Your task to perform on an android device: toggle translation in the chrome app Image 0: 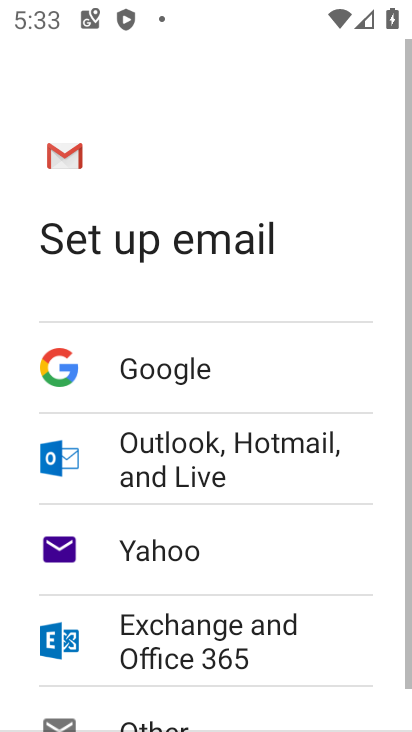
Step 0: press home button
Your task to perform on an android device: toggle translation in the chrome app Image 1: 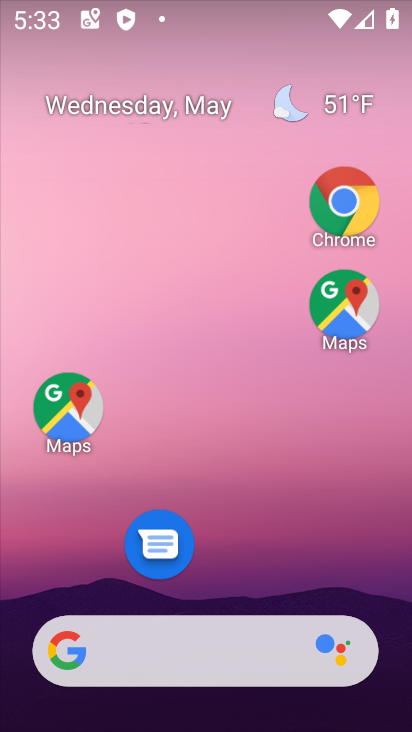
Step 1: drag from (271, 555) to (251, 0)
Your task to perform on an android device: toggle translation in the chrome app Image 2: 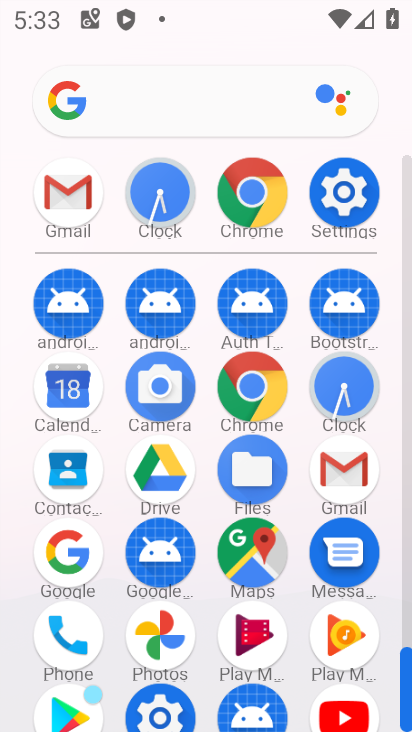
Step 2: click (254, 208)
Your task to perform on an android device: toggle translation in the chrome app Image 3: 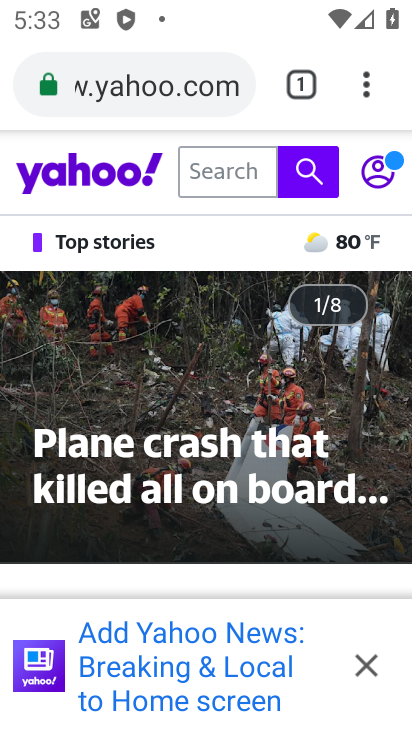
Step 3: click (372, 79)
Your task to perform on an android device: toggle translation in the chrome app Image 4: 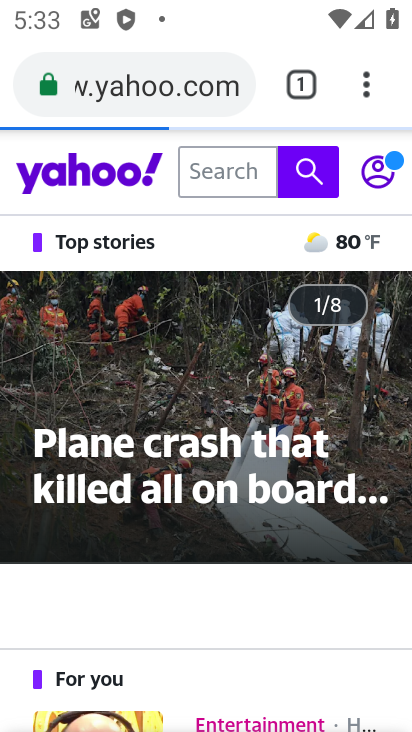
Step 4: click (374, 89)
Your task to perform on an android device: toggle translation in the chrome app Image 5: 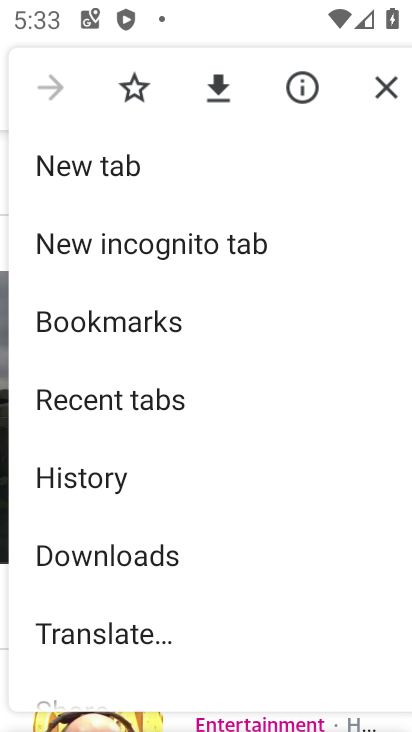
Step 5: drag from (165, 597) to (125, 316)
Your task to perform on an android device: toggle translation in the chrome app Image 6: 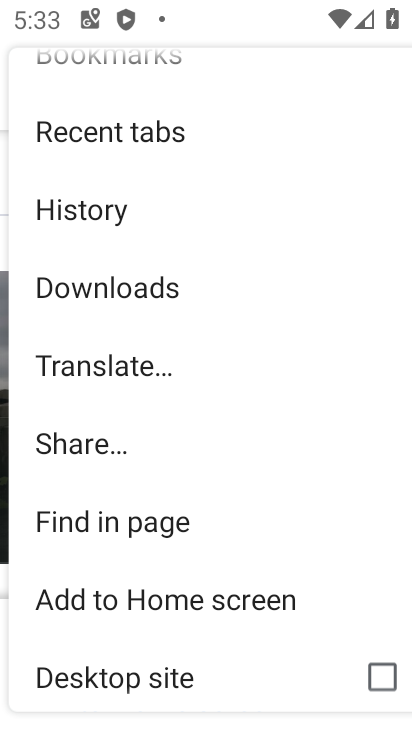
Step 6: drag from (139, 596) to (140, 187)
Your task to perform on an android device: toggle translation in the chrome app Image 7: 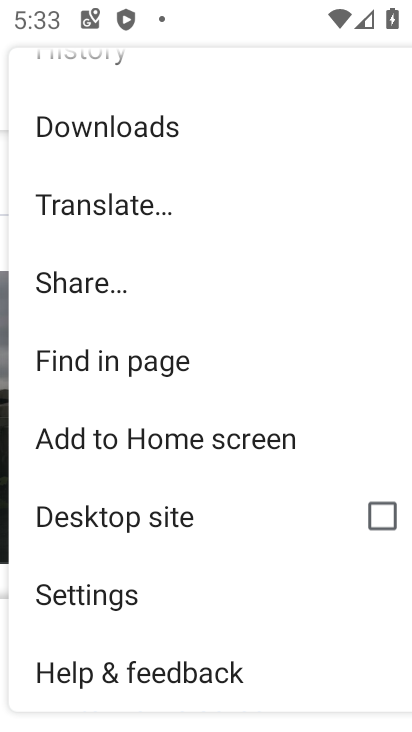
Step 7: click (88, 591)
Your task to perform on an android device: toggle translation in the chrome app Image 8: 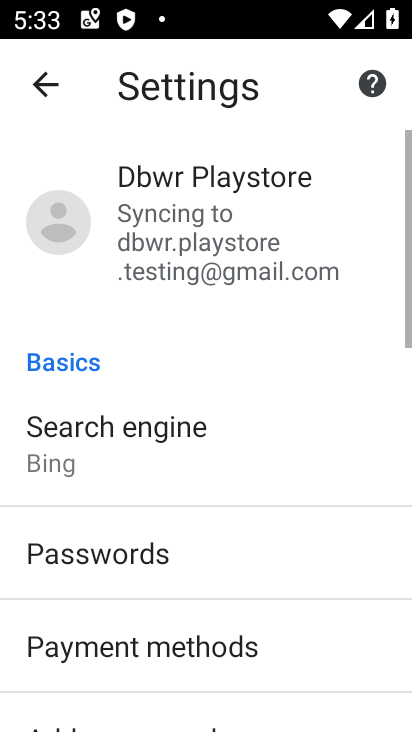
Step 8: drag from (200, 637) to (159, 242)
Your task to perform on an android device: toggle translation in the chrome app Image 9: 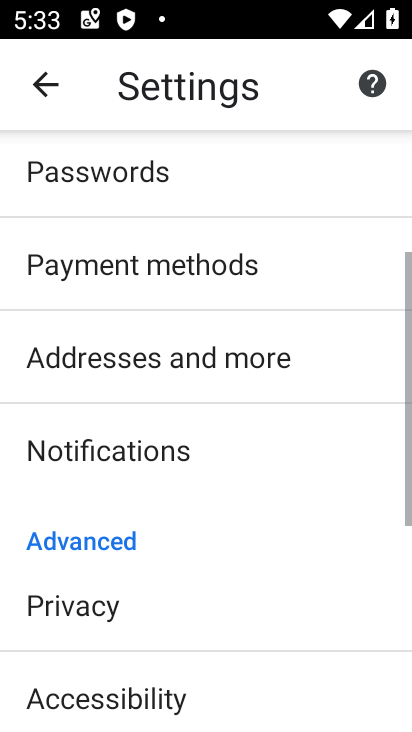
Step 9: drag from (158, 639) to (158, 329)
Your task to perform on an android device: toggle translation in the chrome app Image 10: 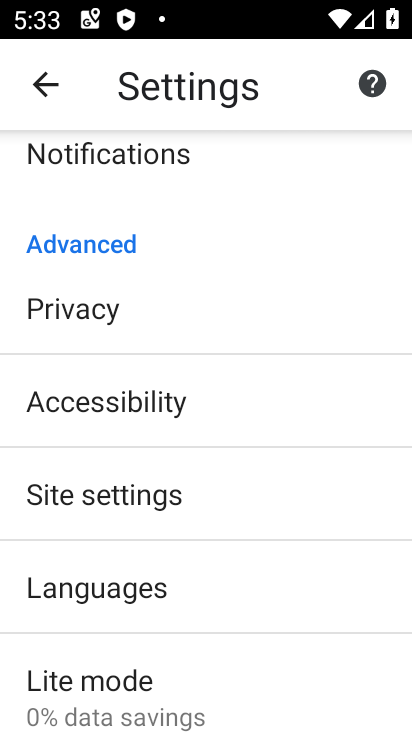
Step 10: drag from (143, 658) to (140, 395)
Your task to perform on an android device: toggle translation in the chrome app Image 11: 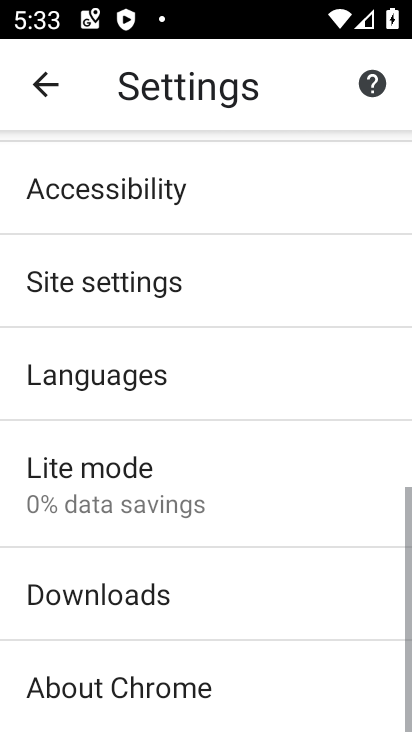
Step 11: click (102, 388)
Your task to perform on an android device: toggle translation in the chrome app Image 12: 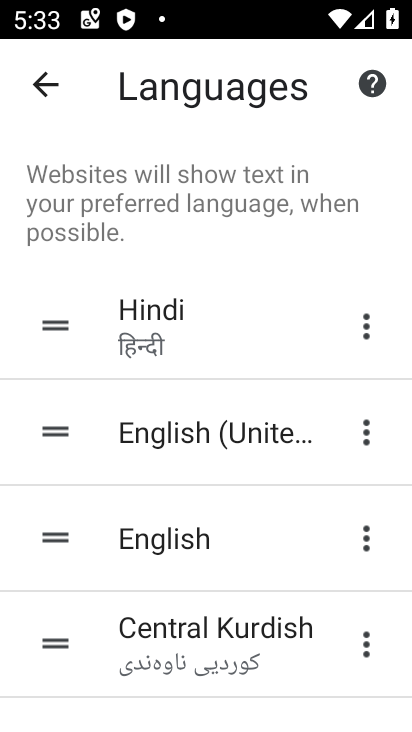
Step 12: drag from (177, 297) to (177, 225)
Your task to perform on an android device: toggle translation in the chrome app Image 13: 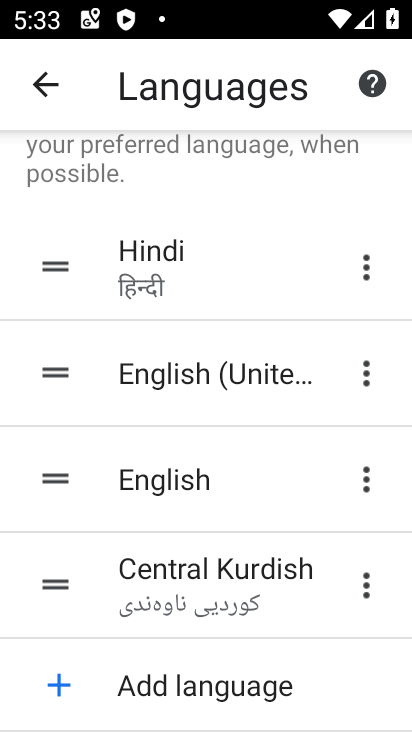
Step 13: drag from (199, 626) to (171, 182)
Your task to perform on an android device: toggle translation in the chrome app Image 14: 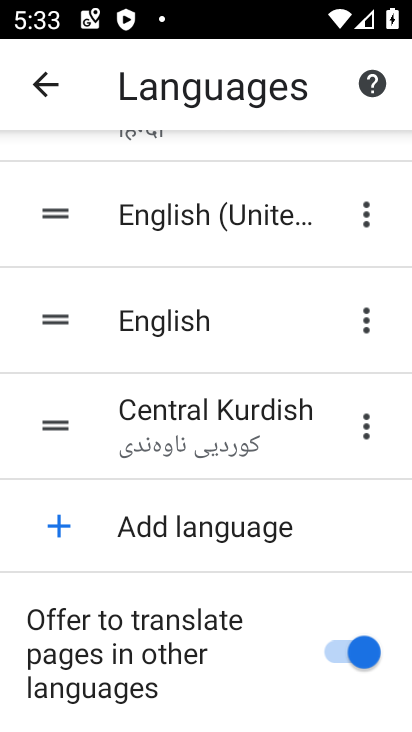
Step 14: click (338, 651)
Your task to perform on an android device: toggle translation in the chrome app Image 15: 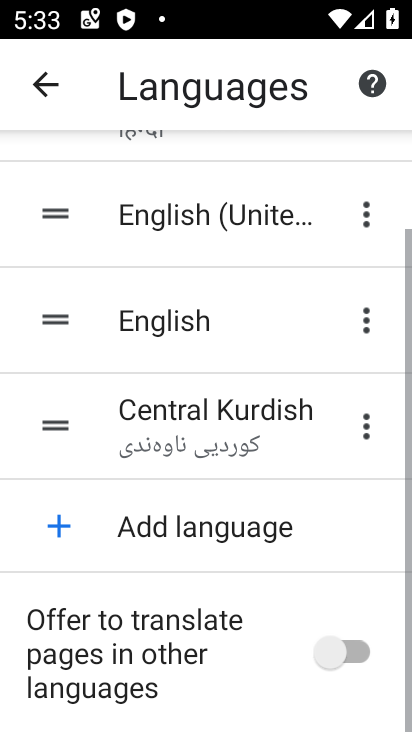
Step 15: task complete